Your task to perform on an android device: turn off notifications in google photos Image 0: 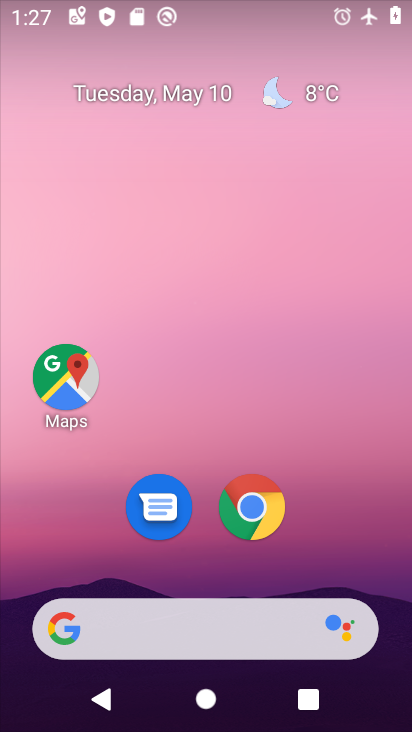
Step 0: drag from (214, 730) to (225, 155)
Your task to perform on an android device: turn off notifications in google photos Image 1: 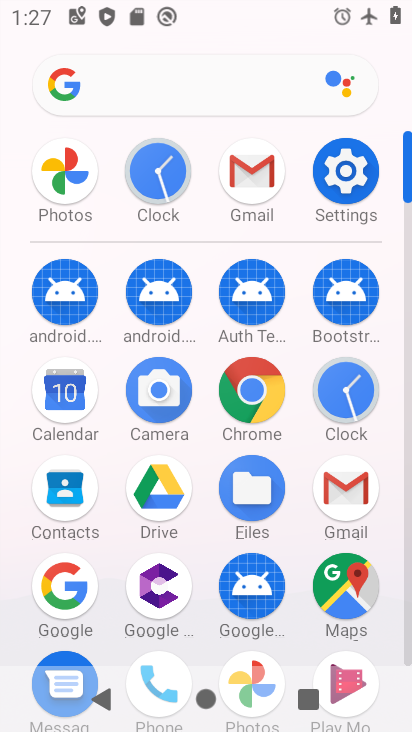
Step 1: click (62, 178)
Your task to perform on an android device: turn off notifications in google photos Image 2: 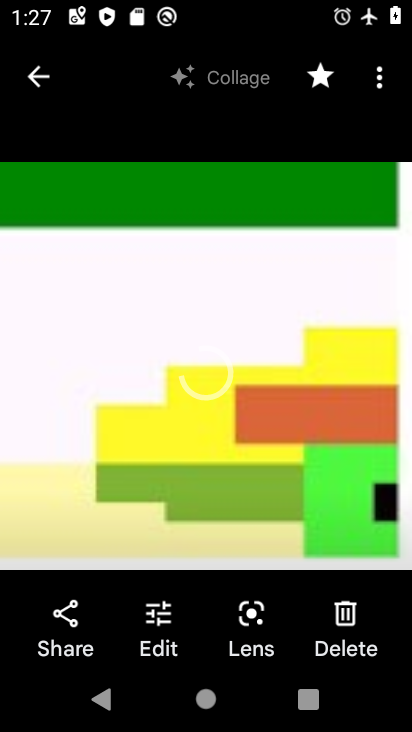
Step 2: click (38, 78)
Your task to perform on an android device: turn off notifications in google photos Image 3: 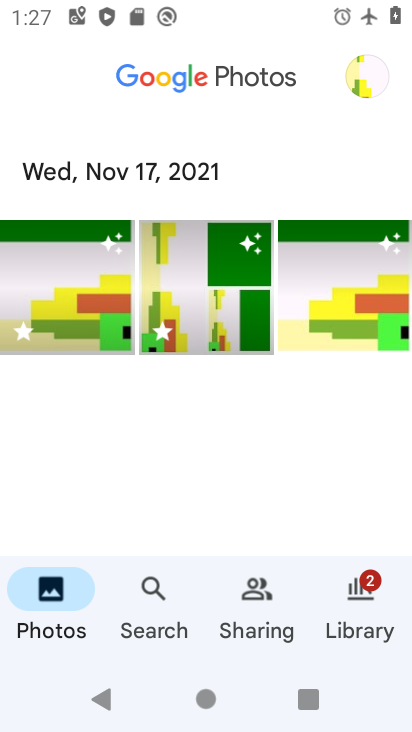
Step 3: click (365, 77)
Your task to perform on an android device: turn off notifications in google photos Image 4: 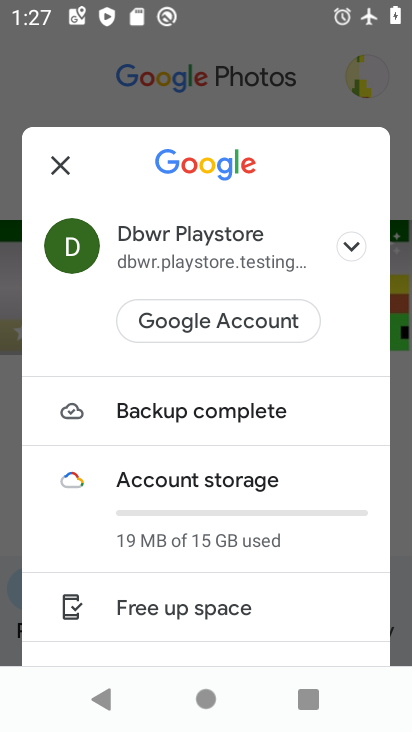
Step 4: drag from (218, 632) to (244, 281)
Your task to perform on an android device: turn off notifications in google photos Image 5: 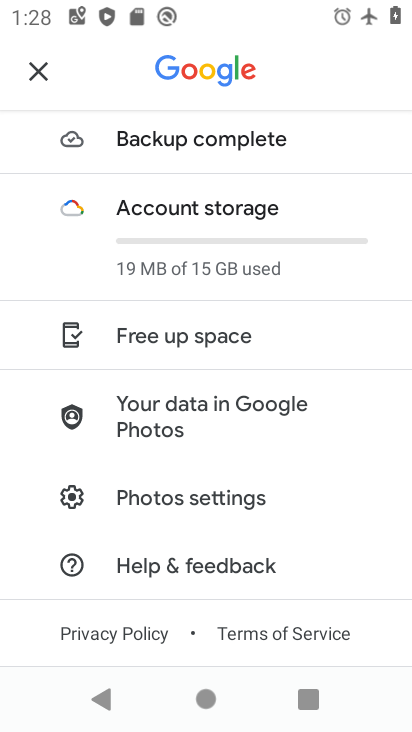
Step 5: click (179, 498)
Your task to perform on an android device: turn off notifications in google photos Image 6: 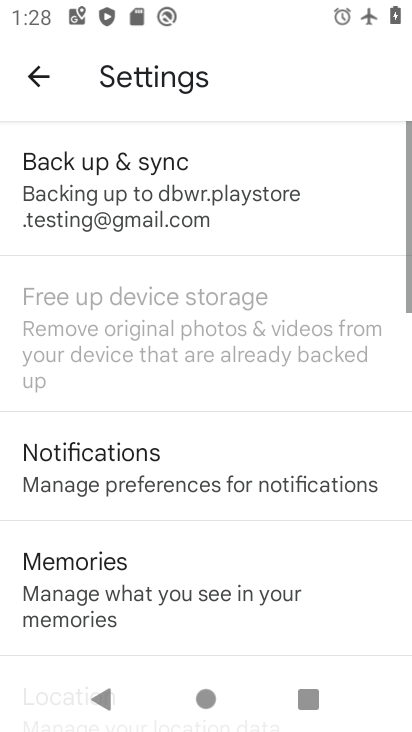
Step 6: click (138, 467)
Your task to perform on an android device: turn off notifications in google photos Image 7: 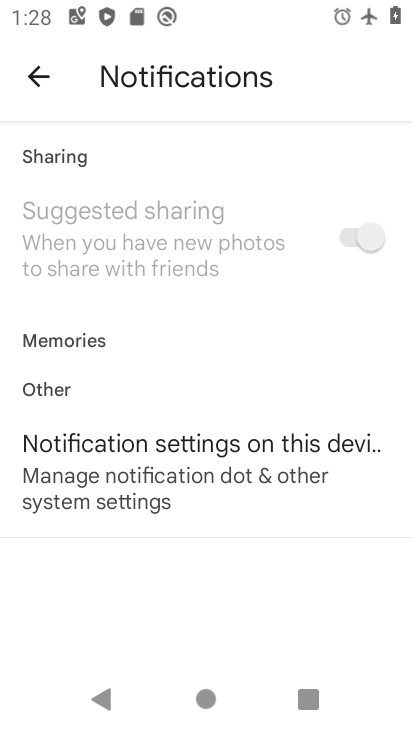
Step 7: click (184, 453)
Your task to perform on an android device: turn off notifications in google photos Image 8: 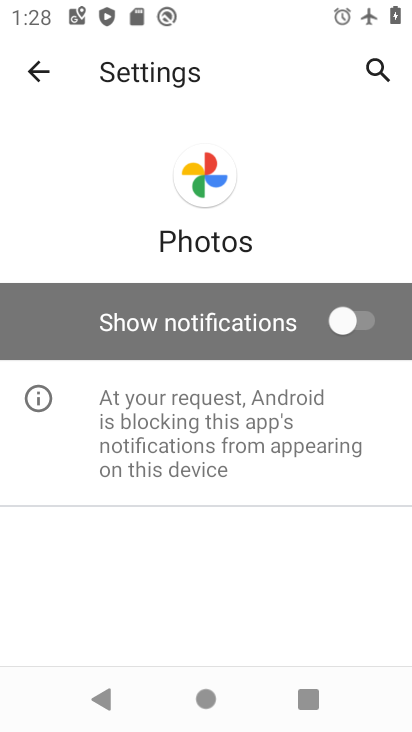
Step 8: task complete